Your task to perform on an android device: Search for seafood restaurants on Google Maps Image 0: 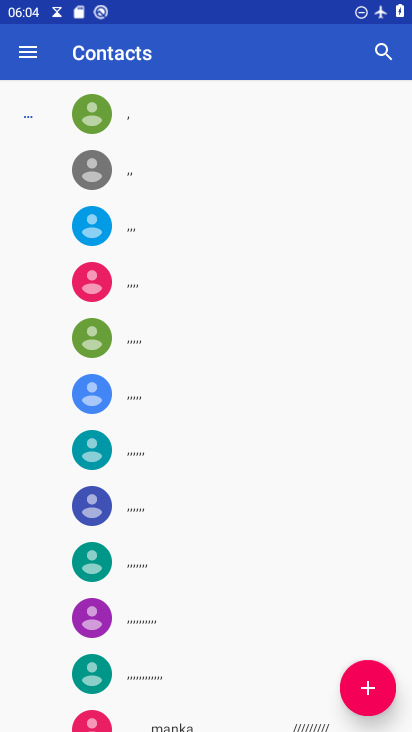
Step 0: press home button
Your task to perform on an android device: Search for seafood restaurants on Google Maps Image 1: 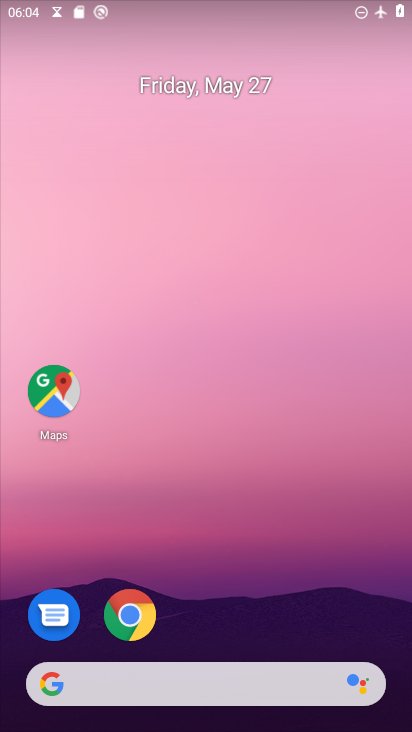
Step 1: drag from (275, 564) to (213, 34)
Your task to perform on an android device: Search for seafood restaurants on Google Maps Image 2: 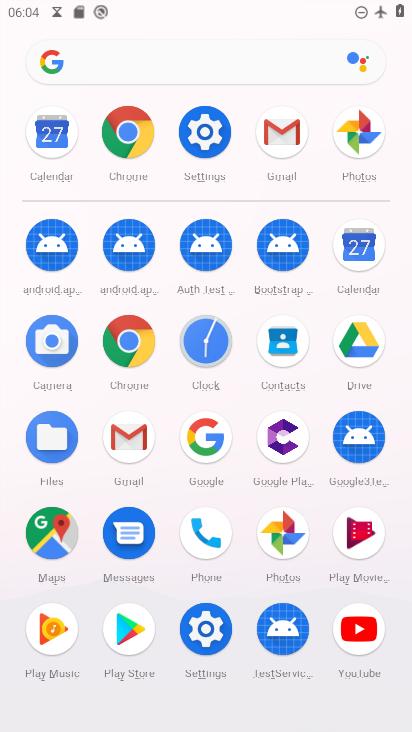
Step 2: click (53, 531)
Your task to perform on an android device: Search for seafood restaurants on Google Maps Image 3: 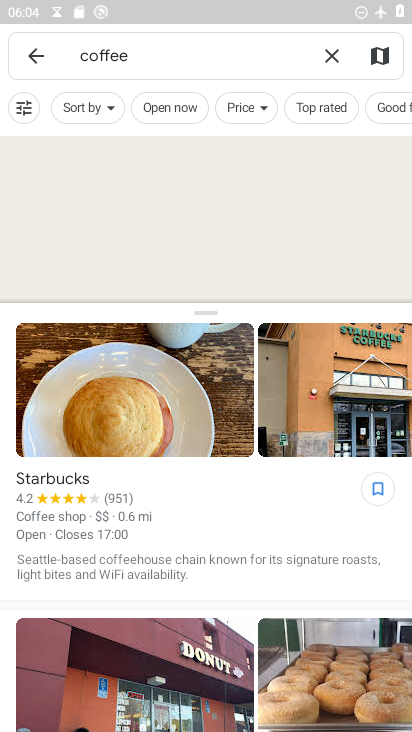
Step 3: click (330, 60)
Your task to perform on an android device: Search for seafood restaurants on Google Maps Image 4: 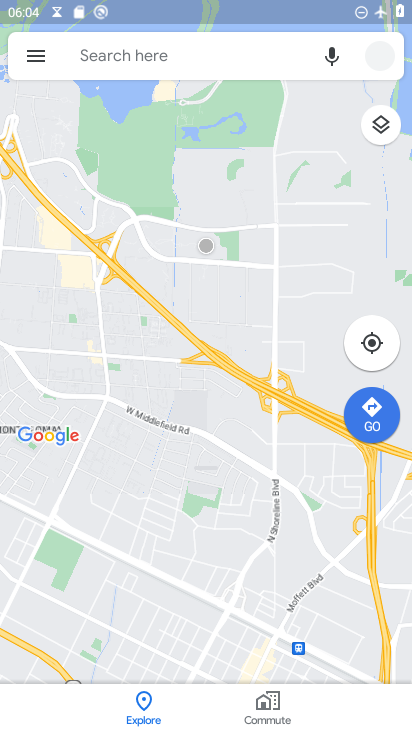
Step 4: click (150, 50)
Your task to perform on an android device: Search for seafood restaurants on Google Maps Image 5: 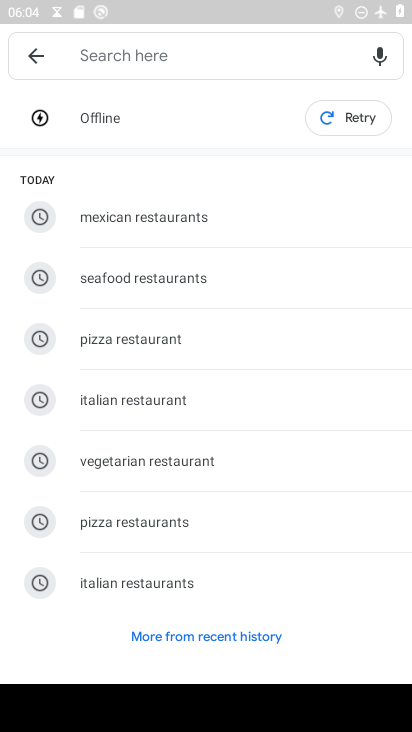
Step 5: click (122, 272)
Your task to perform on an android device: Search for seafood restaurants on Google Maps Image 6: 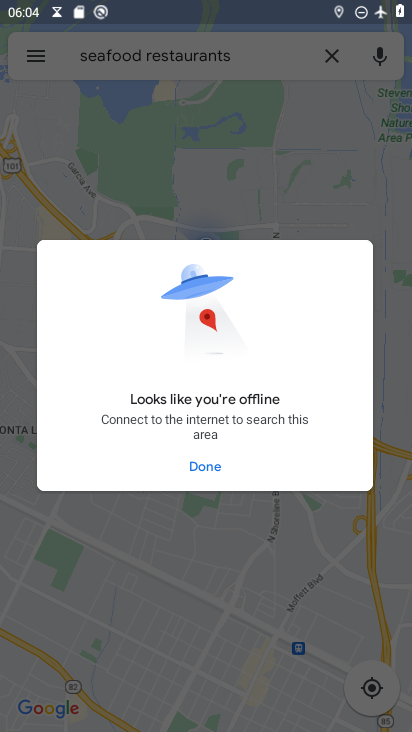
Step 6: click (208, 465)
Your task to perform on an android device: Search for seafood restaurants on Google Maps Image 7: 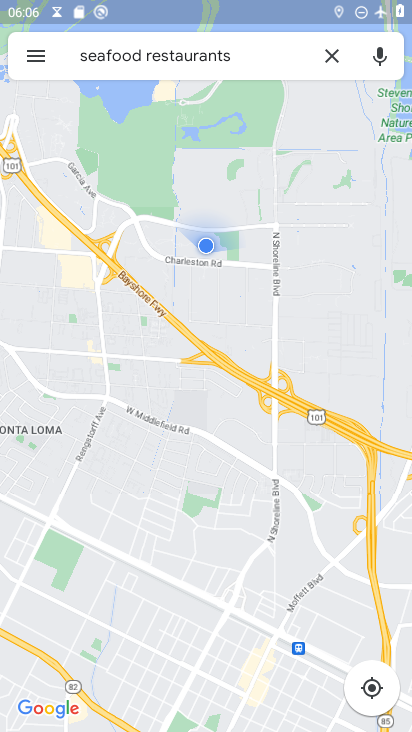
Step 7: task complete